Your task to perform on an android device: set the stopwatch Image 0: 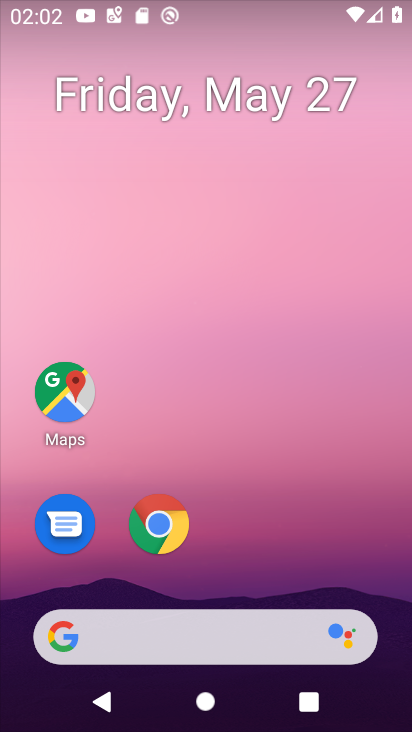
Step 0: drag from (280, 523) to (316, 4)
Your task to perform on an android device: set the stopwatch Image 1: 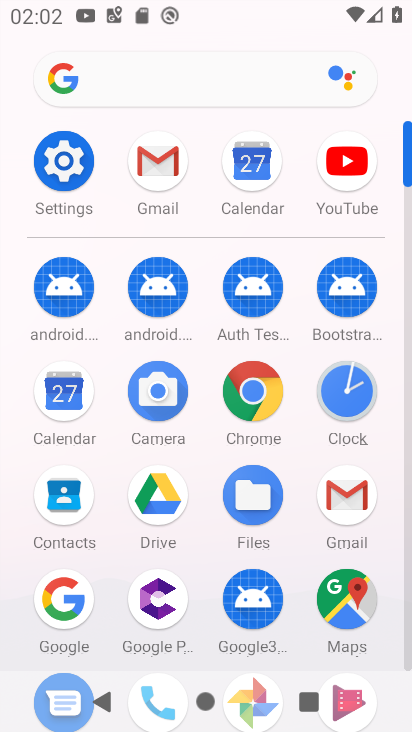
Step 1: click (347, 396)
Your task to perform on an android device: set the stopwatch Image 2: 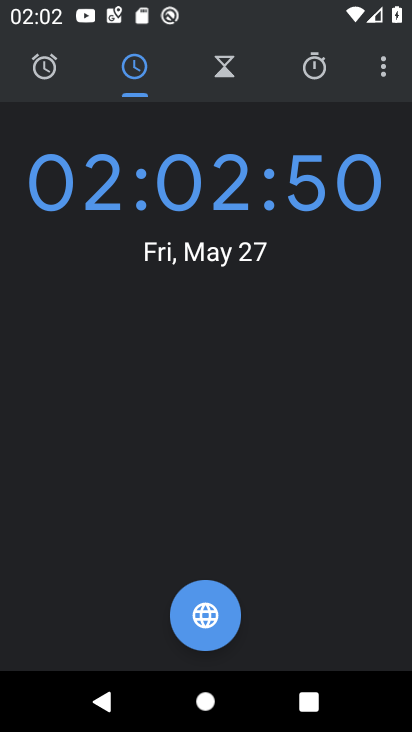
Step 2: click (318, 70)
Your task to perform on an android device: set the stopwatch Image 3: 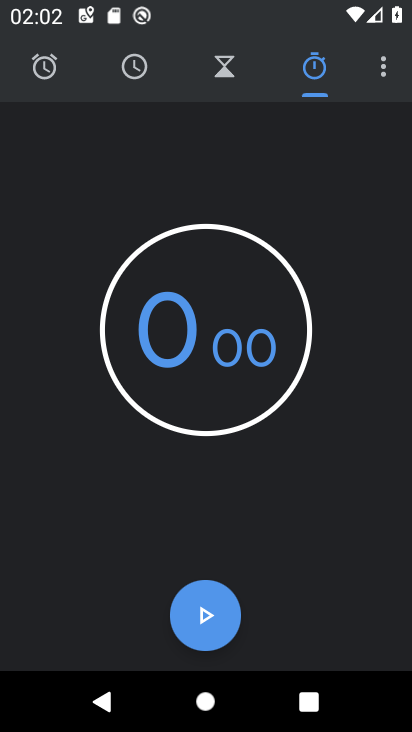
Step 3: task complete